Your task to perform on an android device: turn on javascript in the chrome app Image 0: 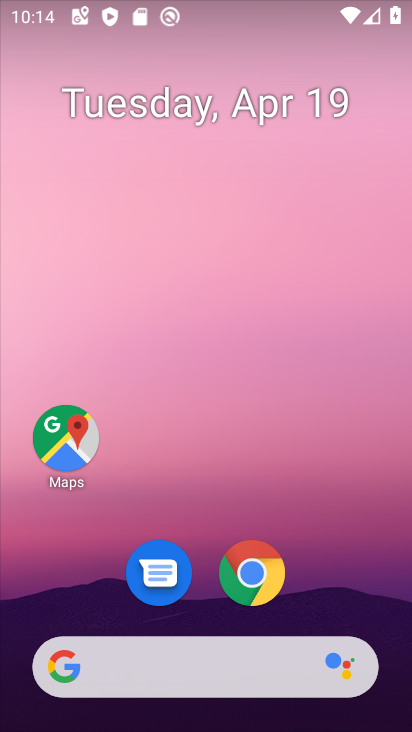
Step 0: click (277, 117)
Your task to perform on an android device: turn on javascript in the chrome app Image 1: 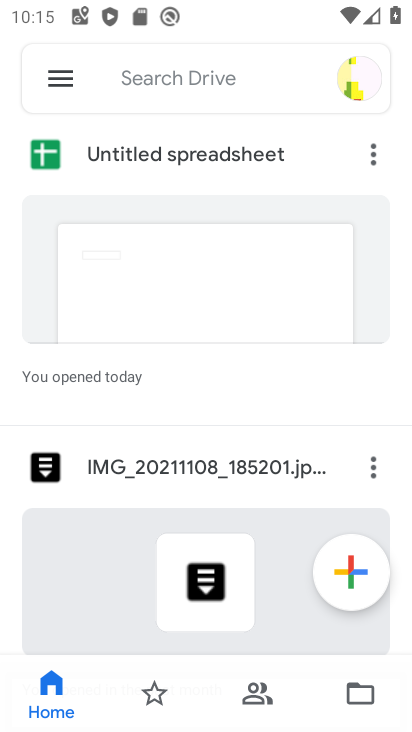
Step 1: press home button
Your task to perform on an android device: turn on javascript in the chrome app Image 2: 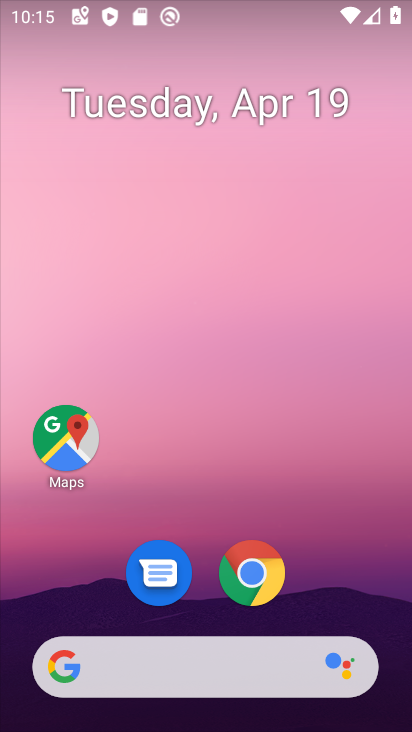
Step 2: click (261, 561)
Your task to perform on an android device: turn on javascript in the chrome app Image 3: 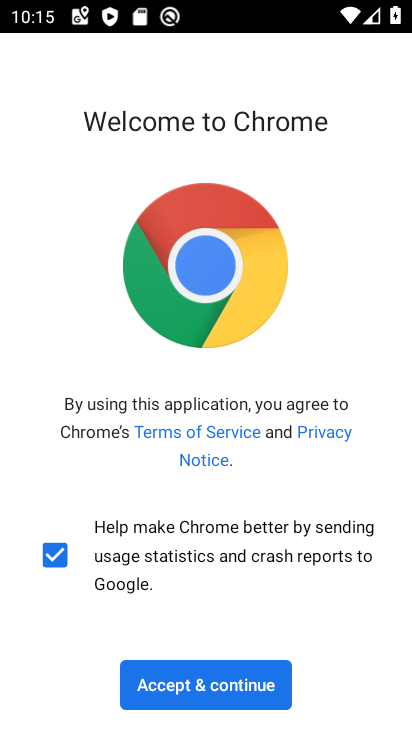
Step 3: click (248, 688)
Your task to perform on an android device: turn on javascript in the chrome app Image 4: 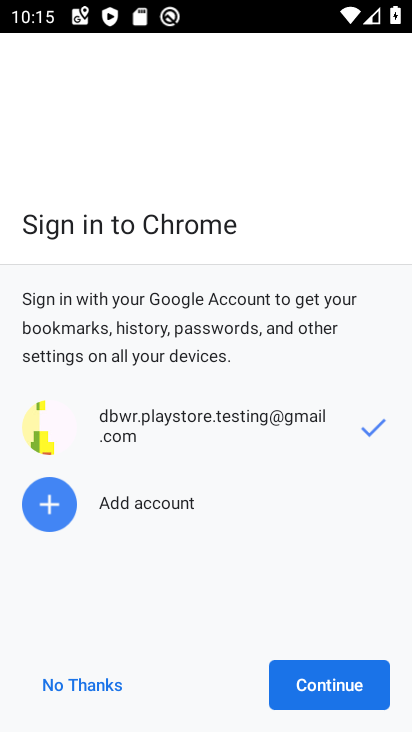
Step 4: click (313, 684)
Your task to perform on an android device: turn on javascript in the chrome app Image 5: 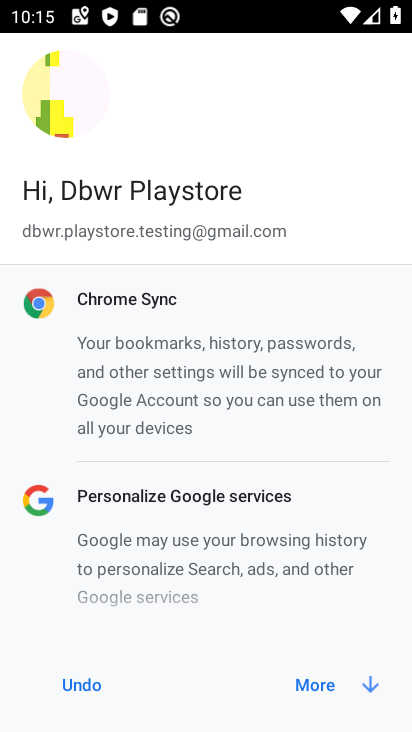
Step 5: click (313, 684)
Your task to perform on an android device: turn on javascript in the chrome app Image 6: 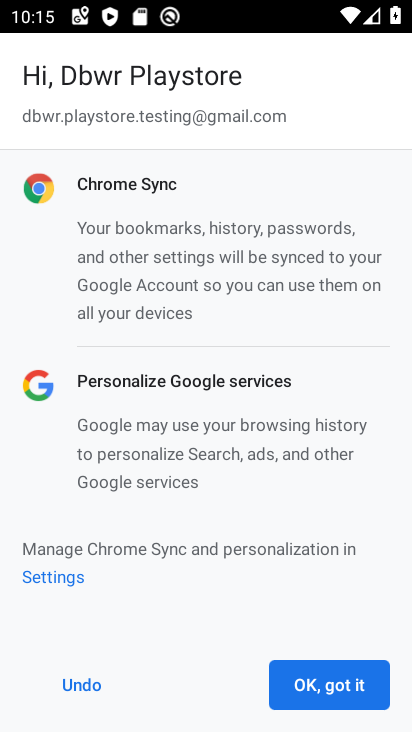
Step 6: click (313, 684)
Your task to perform on an android device: turn on javascript in the chrome app Image 7: 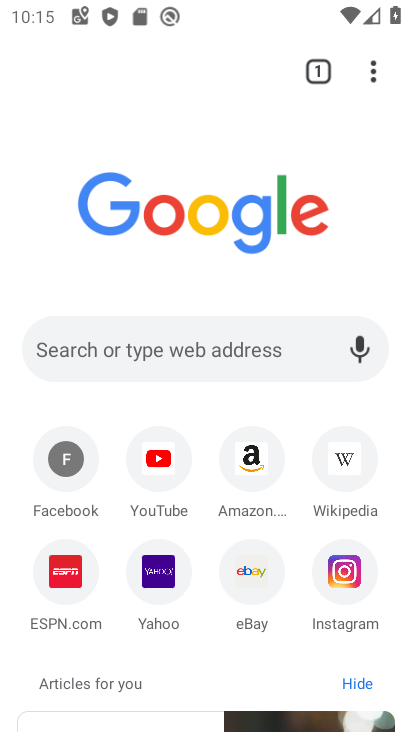
Step 7: click (371, 76)
Your task to perform on an android device: turn on javascript in the chrome app Image 8: 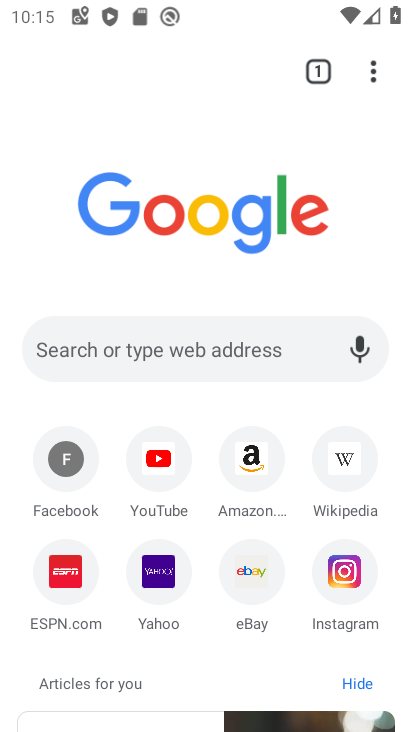
Step 8: click (371, 76)
Your task to perform on an android device: turn on javascript in the chrome app Image 9: 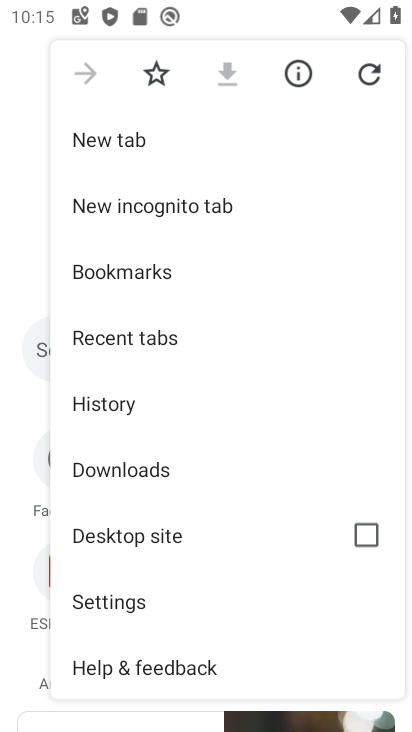
Step 9: click (113, 599)
Your task to perform on an android device: turn on javascript in the chrome app Image 10: 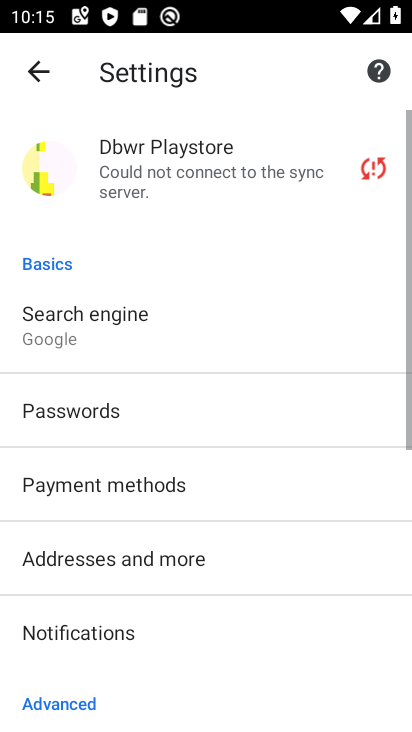
Step 10: drag from (122, 678) to (92, 349)
Your task to perform on an android device: turn on javascript in the chrome app Image 11: 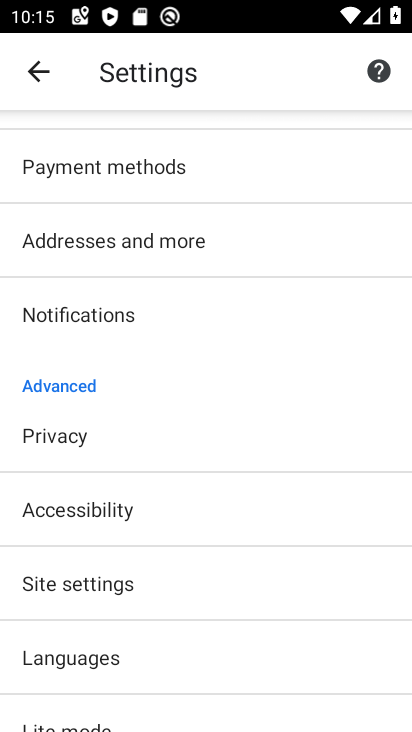
Step 11: click (83, 587)
Your task to perform on an android device: turn on javascript in the chrome app Image 12: 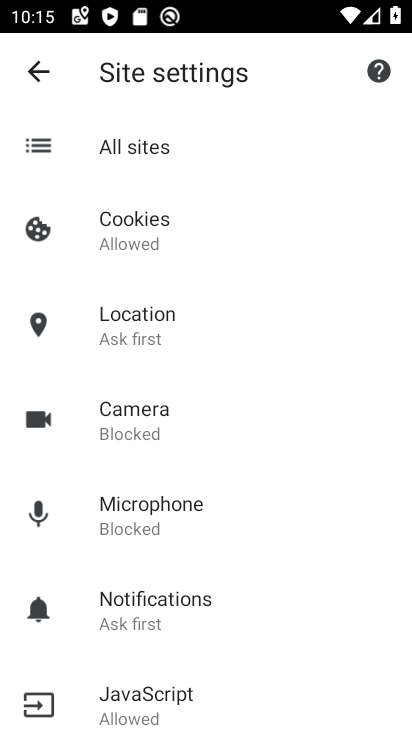
Step 12: click (167, 697)
Your task to perform on an android device: turn on javascript in the chrome app Image 13: 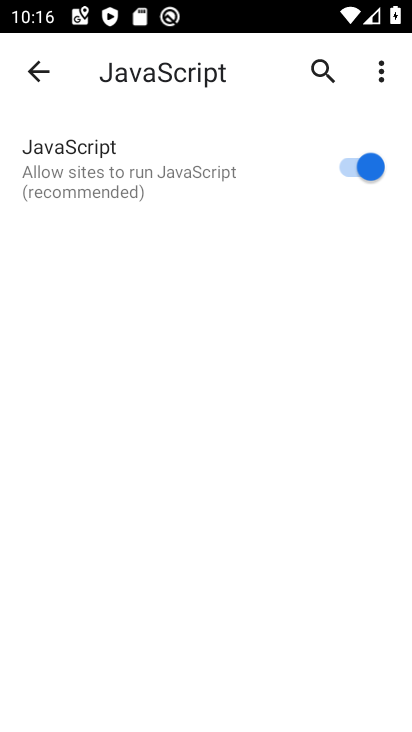
Step 13: task complete